Your task to perform on an android device: choose inbox layout in the gmail app Image 0: 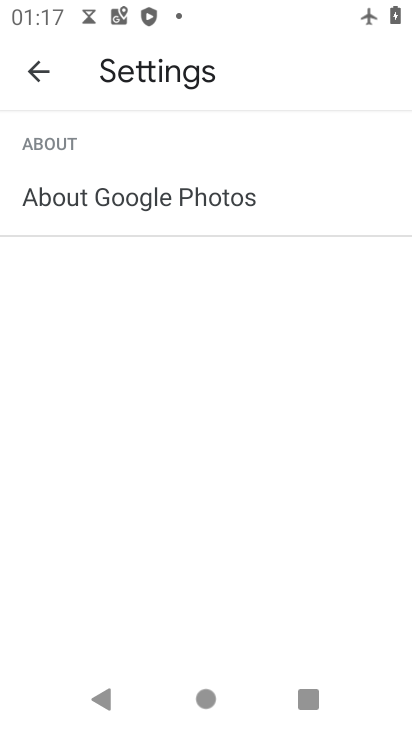
Step 0: press home button
Your task to perform on an android device: choose inbox layout in the gmail app Image 1: 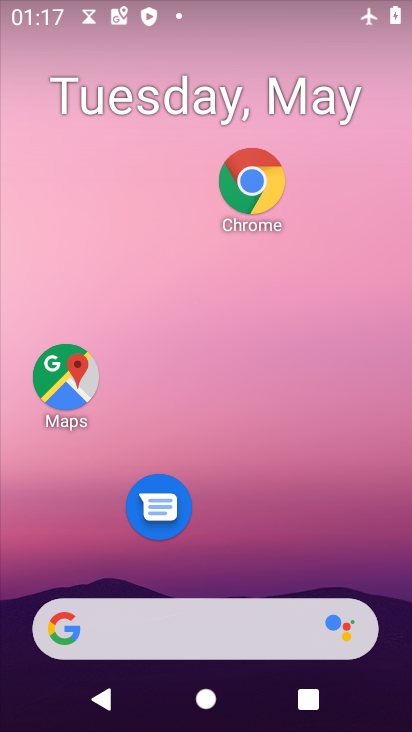
Step 1: drag from (263, 534) to (331, 196)
Your task to perform on an android device: choose inbox layout in the gmail app Image 2: 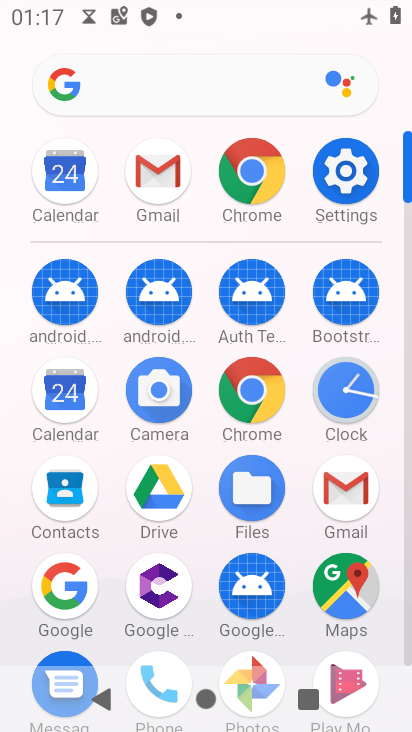
Step 2: click (157, 179)
Your task to perform on an android device: choose inbox layout in the gmail app Image 3: 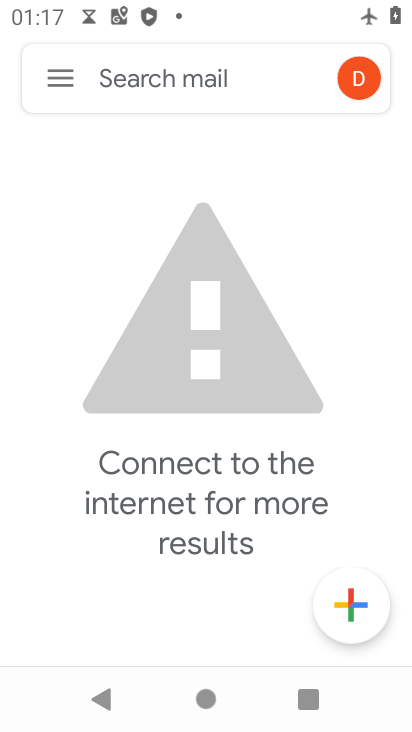
Step 3: click (57, 73)
Your task to perform on an android device: choose inbox layout in the gmail app Image 4: 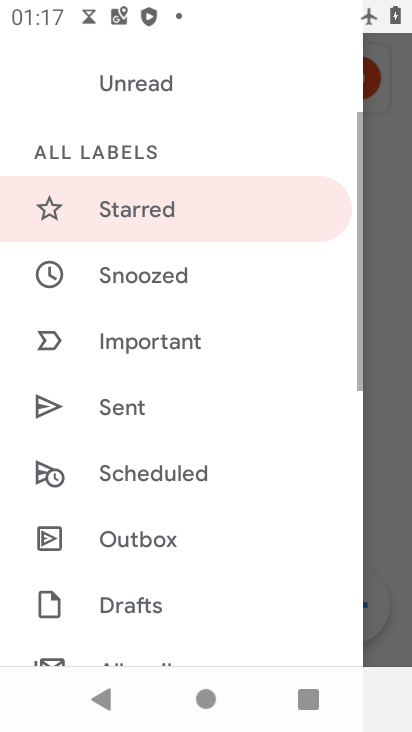
Step 4: drag from (203, 595) to (251, 189)
Your task to perform on an android device: choose inbox layout in the gmail app Image 5: 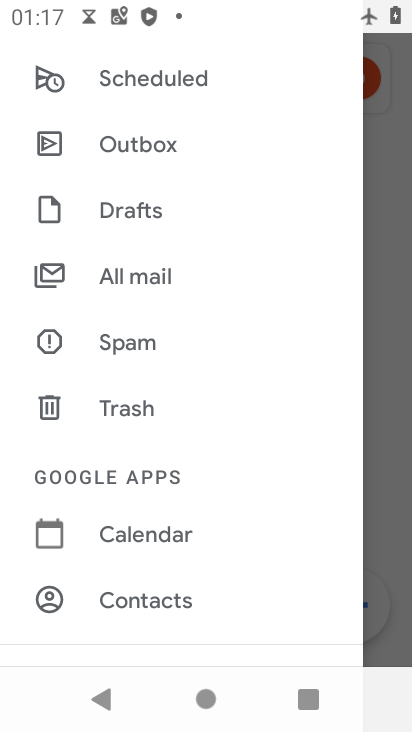
Step 5: drag from (145, 552) to (184, 187)
Your task to perform on an android device: choose inbox layout in the gmail app Image 6: 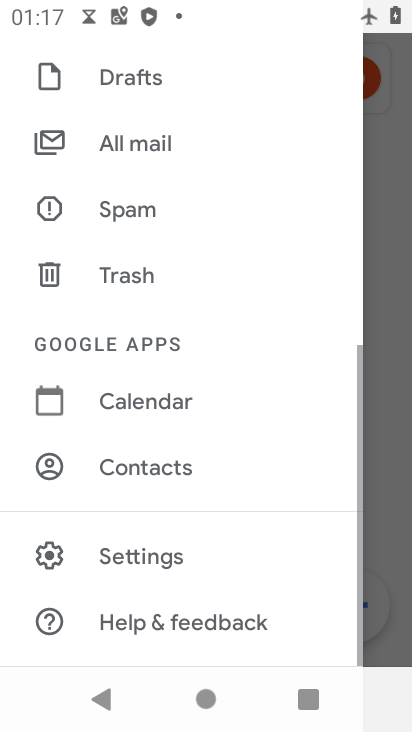
Step 6: click (157, 554)
Your task to perform on an android device: choose inbox layout in the gmail app Image 7: 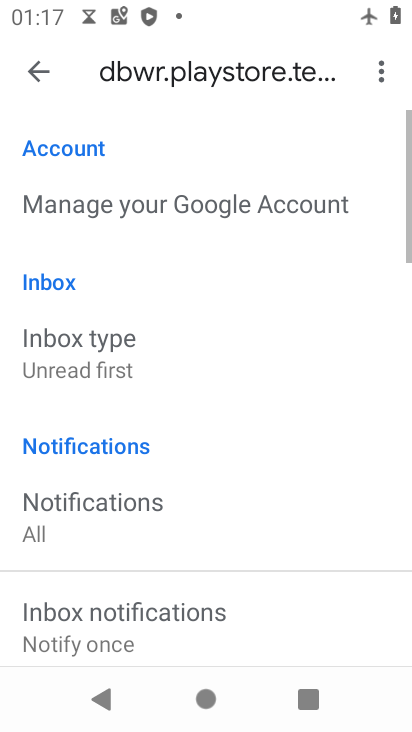
Step 7: click (130, 360)
Your task to perform on an android device: choose inbox layout in the gmail app Image 8: 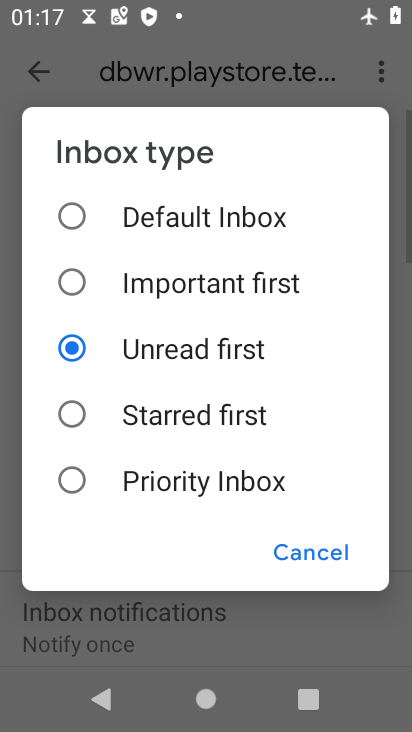
Step 8: click (191, 409)
Your task to perform on an android device: choose inbox layout in the gmail app Image 9: 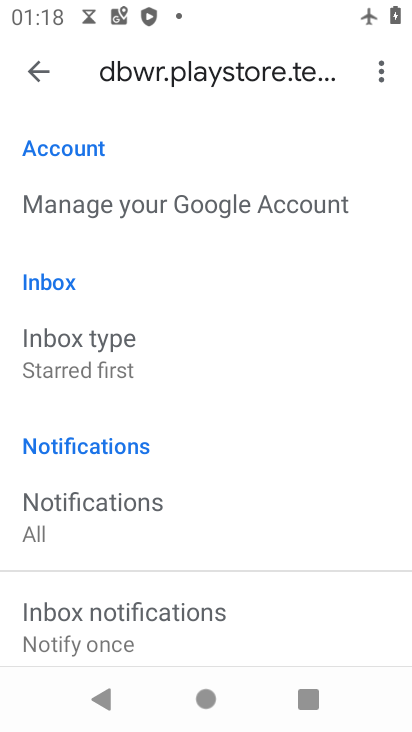
Step 9: task complete